Your task to perform on an android device: clear all cookies in the chrome app Image 0: 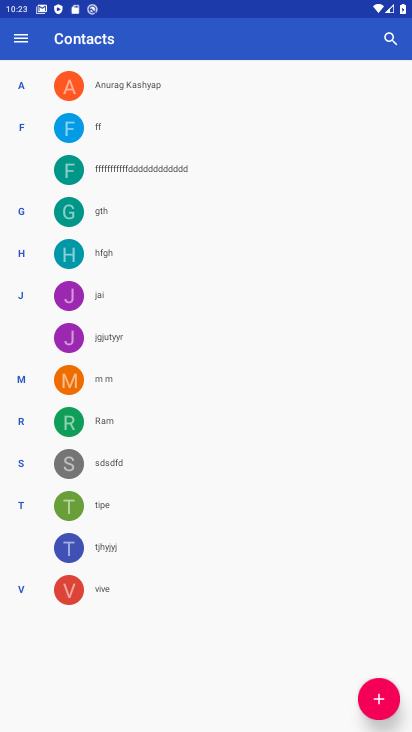
Step 0: press home button
Your task to perform on an android device: clear all cookies in the chrome app Image 1: 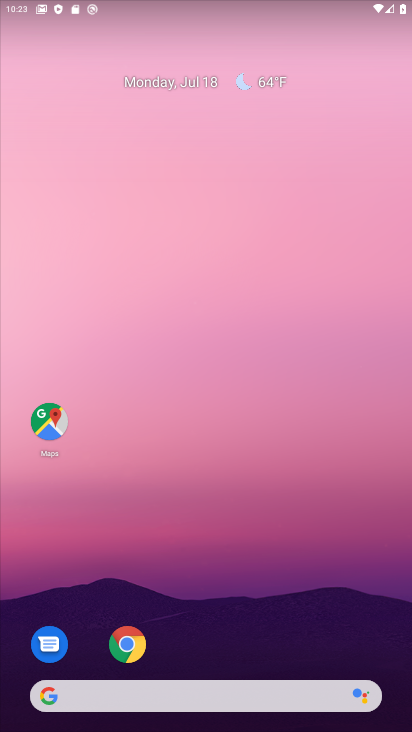
Step 1: click (122, 647)
Your task to perform on an android device: clear all cookies in the chrome app Image 2: 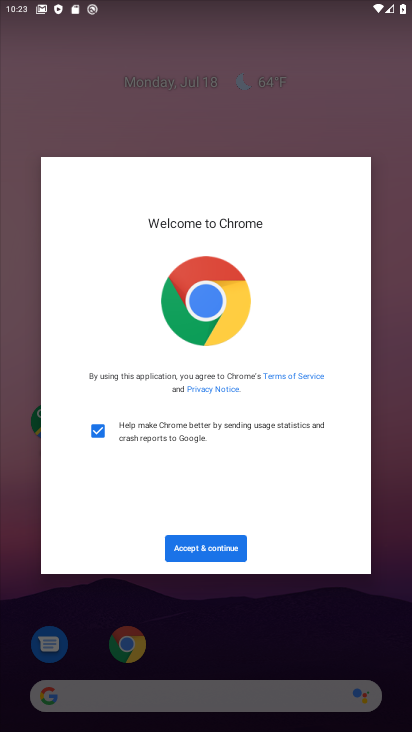
Step 2: click (212, 557)
Your task to perform on an android device: clear all cookies in the chrome app Image 3: 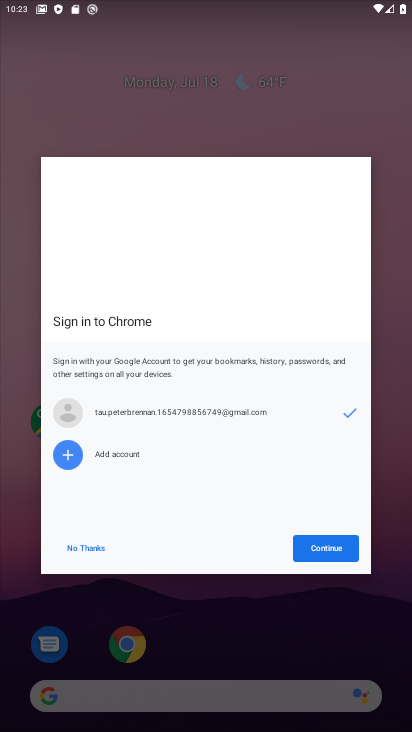
Step 3: click (319, 557)
Your task to perform on an android device: clear all cookies in the chrome app Image 4: 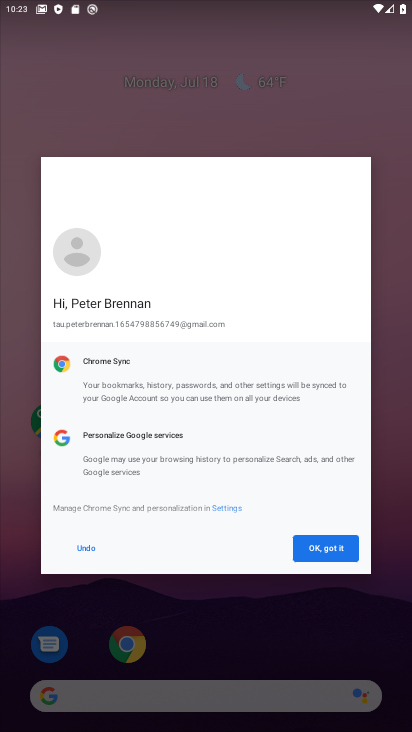
Step 4: click (319, 557)
Your task to perform on an android device: clear all cookies in the chrome app Image 5: 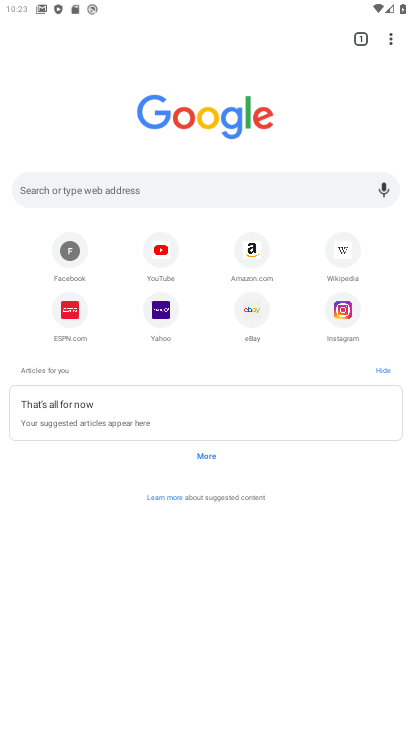
Step 5: click (384, 31)
Your task to perform on an android device: clear all cookies in the chrome app Image 6: 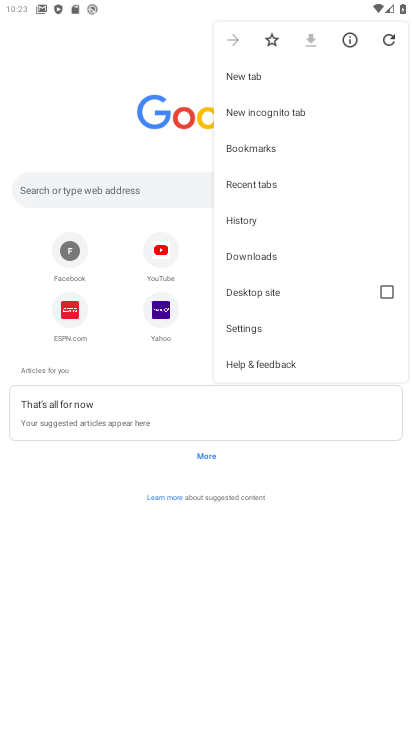
Step 6: click (248, 217)
Your task to perform on an android device: clear all cookies in the chrome app Image 7: 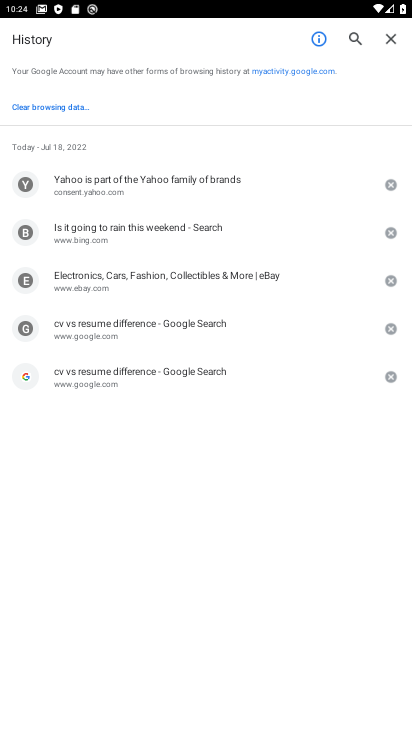
Step 7: click (35, 109)
Your task to perform on an android device: clear all cookies in the chrome app Image 8: 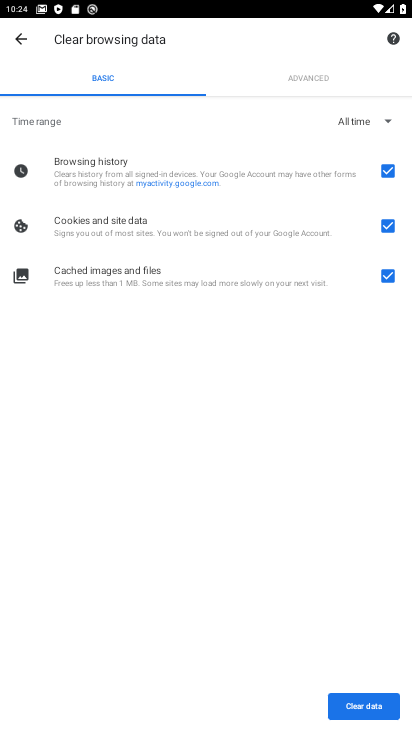
Step 8: click (387, 168)
Your task to perform on an android device: clear all cookies in the chrome app Image 9: 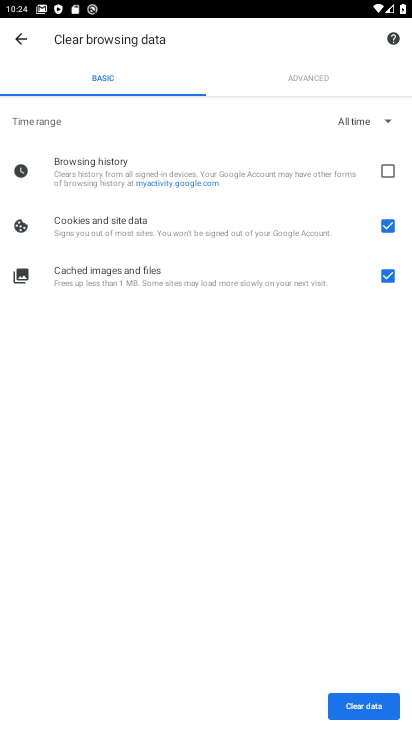
Step 9: click (387, 285)
Your task to perform on an android device: clear all cookies in the chrome app Image 10: 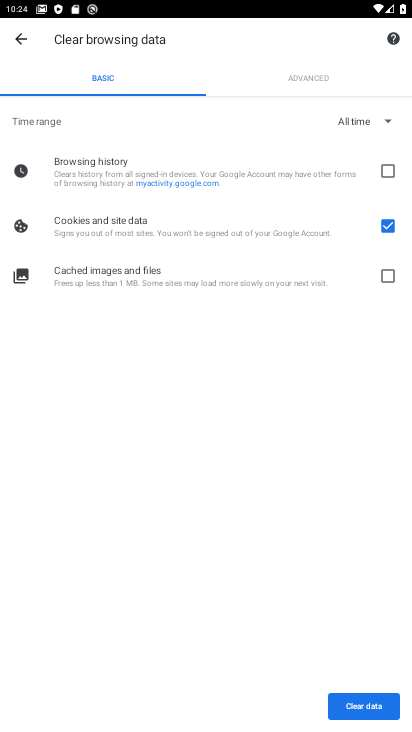
Step 10: click (353, 702)
Your task to perform on an android device: clear all cookies in the chrome app Image 11: 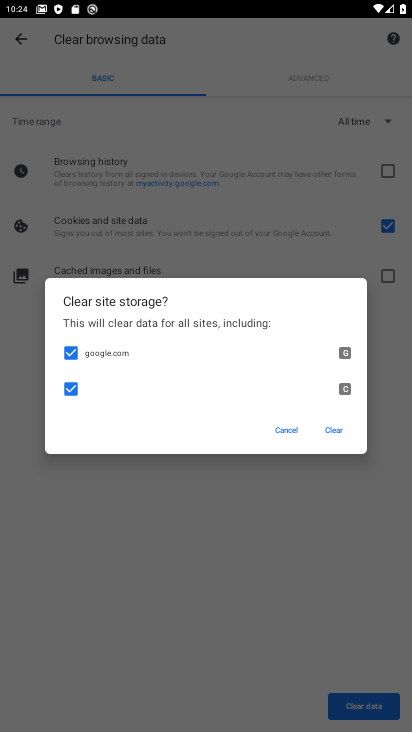
Step 11: click (330, 426)
Your task to perform on an android device: clear all cookies in the chrome app Image 12: 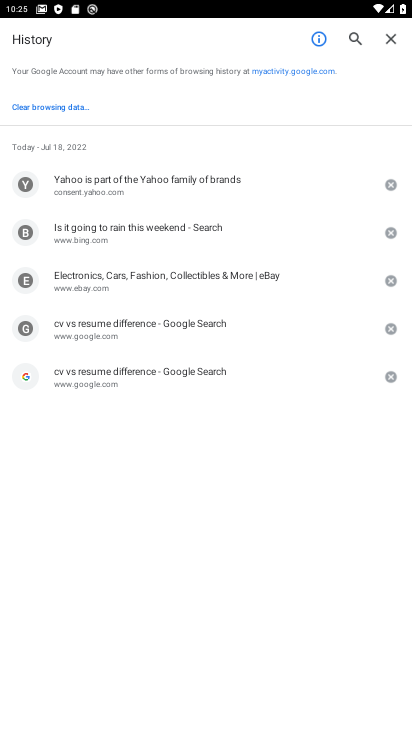
Step 12: task complete